Your task to perform on an android device: refresh tabs in the chrome app Image 0: 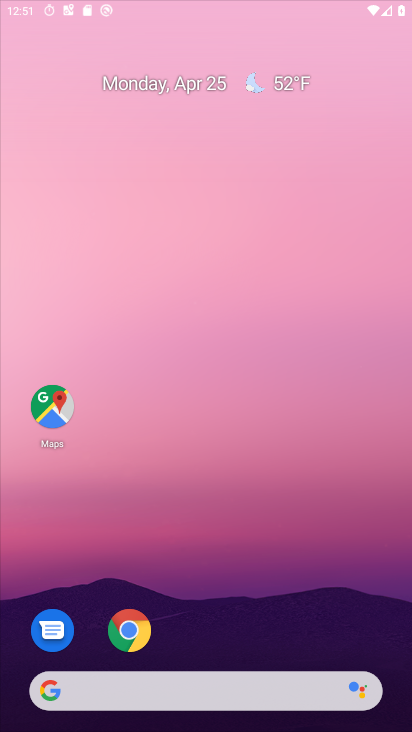
Step 0: drag from (241, 212) to (213, 105)
Your task to perform on an android device: refresh tabs in the chrome app Image 1: 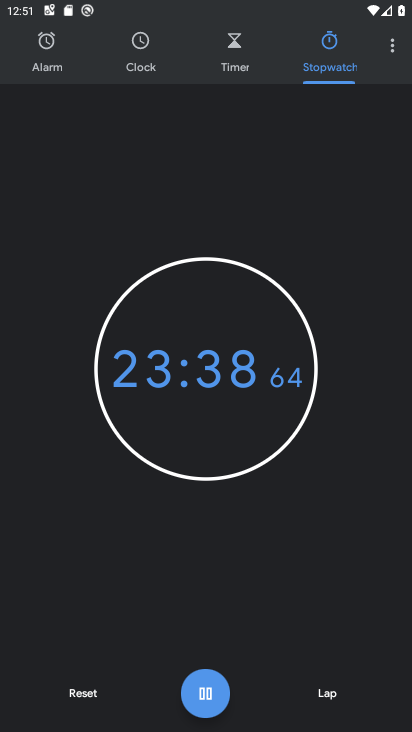
Step 1: press home button
Your task to perform on an android device: refresh tabs in the chrome app Image 2: 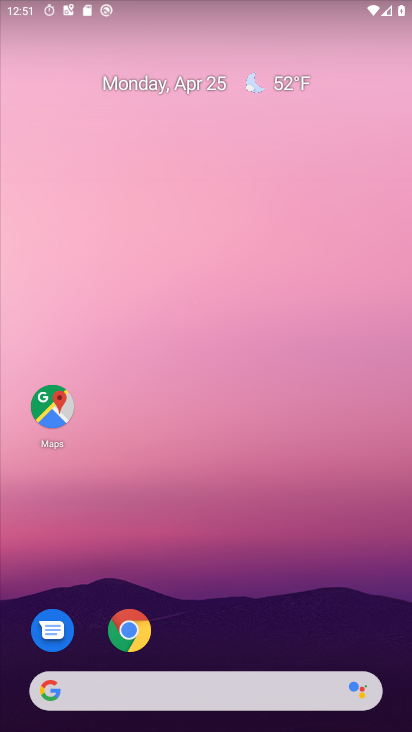
Step 2: click (130, 622)
Your task to perform on an android device: refresh tabs in the chrome app Image 3: 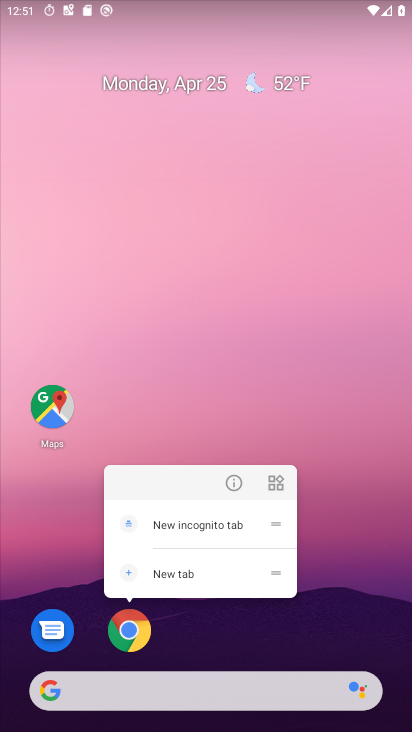
Step 3: click (227, 472)
Your task to perform on an android device: refresh tabs in the chrome app Image 4: 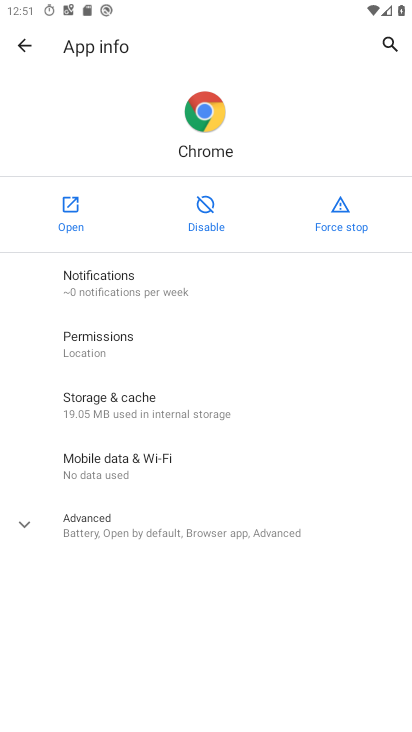
Step 4: click (88, 212)
Your task to perform on an android device: refresh tabs in the chrome app Image 5: 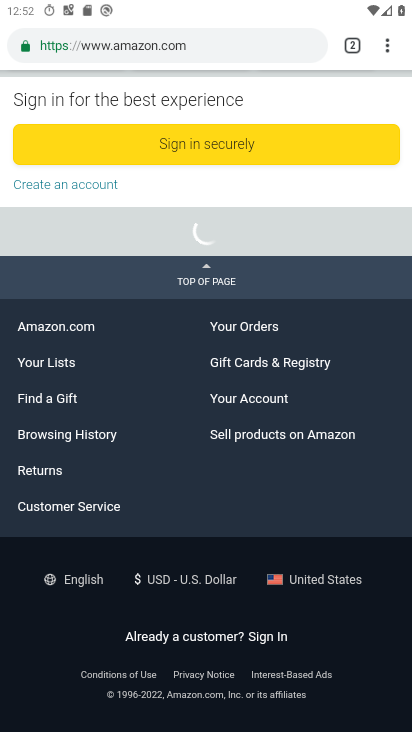
Step 5: click (390, 55)
Your task to perform on an android device: refresh tabs in the chrome app Image 6: 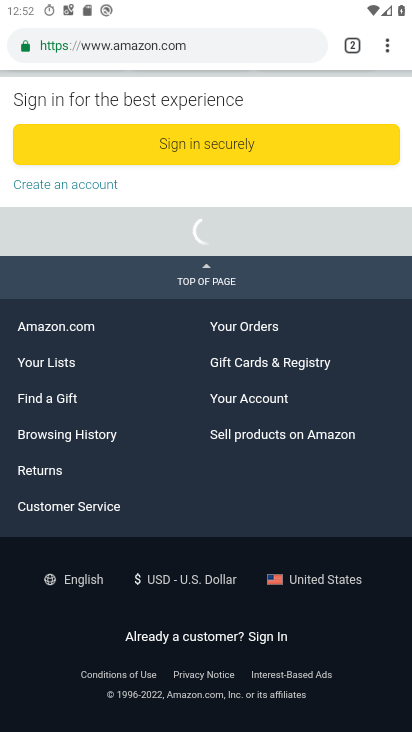
Step 6: click (384, 45)
Your task to perform on an android device: refresh tabs in the chrome app Image 7: 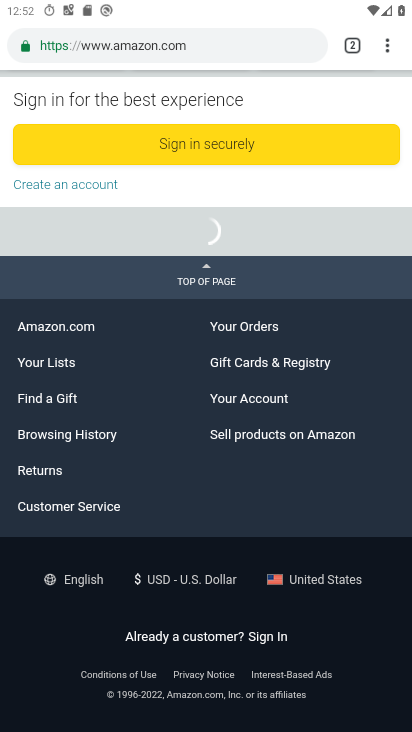
Step 7: task complete